Your task to perform on an android device: set the timer Image 0: 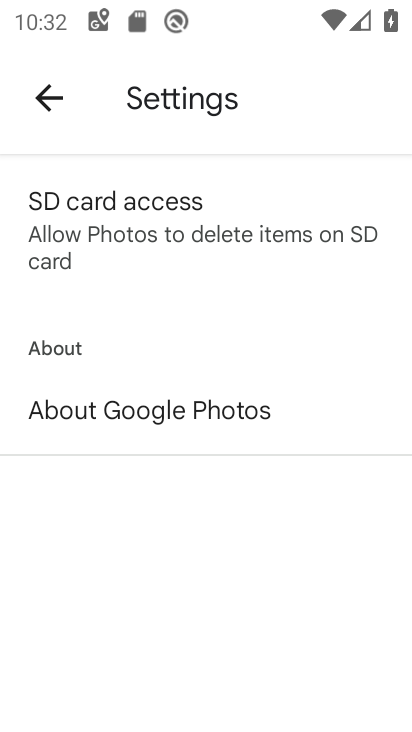
Step 0: press home button
Your task to perform on an android device: set the timer Image 1: 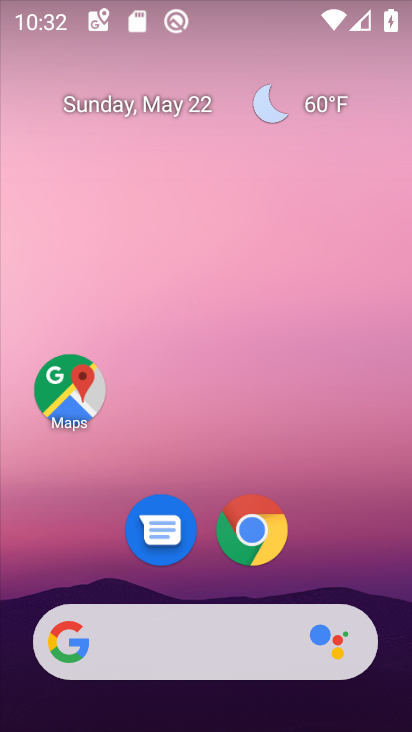
Step 1: drag from (396, 457) to (391, 179)
Your task to perform on an android device: set the timer Image 2: 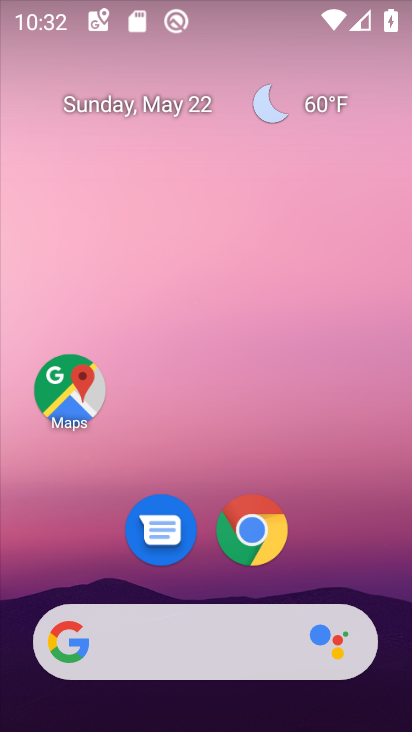
Step 2: drag from (379, 685) to (386, 171)
Your task to perform on an android device: set the timer Image 3: 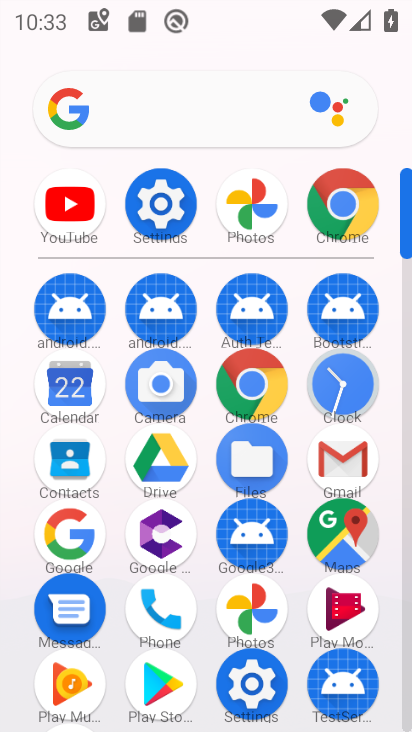
Step 3: click (347, 384)
Your task to perform on an android device: set the timer Image 4: 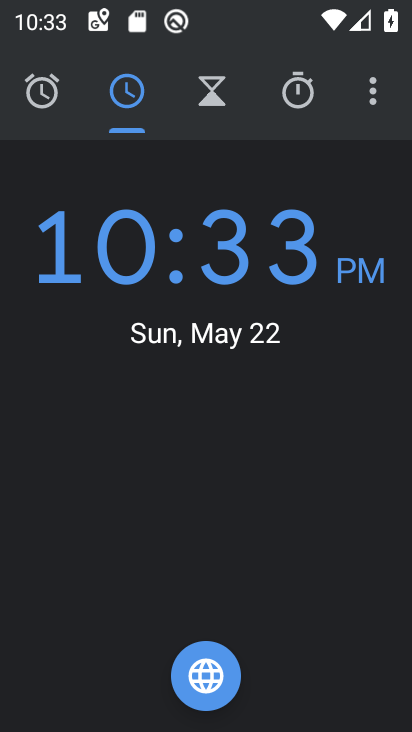
Step 4: click (308, 88)
Your task to perform on an android device: set the timer Image 5: 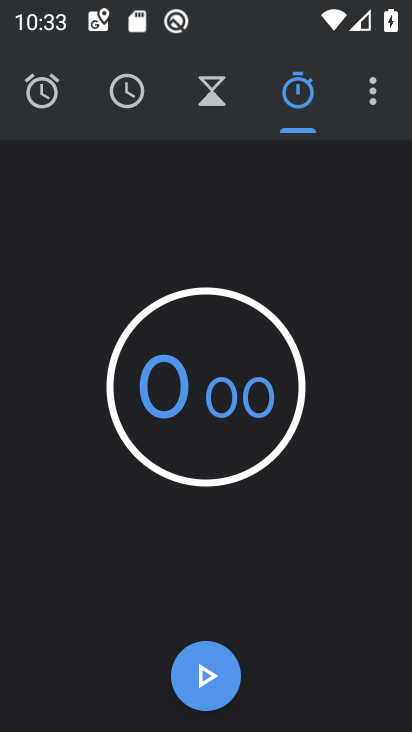
Step 5: click (215, 698)
Your task to perform on an android device: set the timer Image 6: 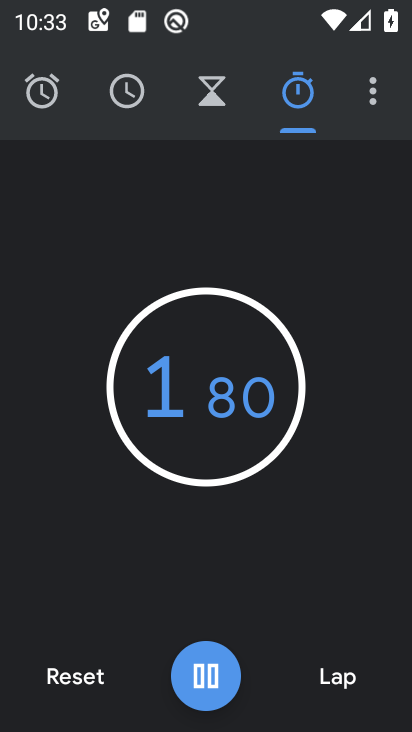
Step 6: task complete